Your task to perform on an android device: turn on location history Image 0: 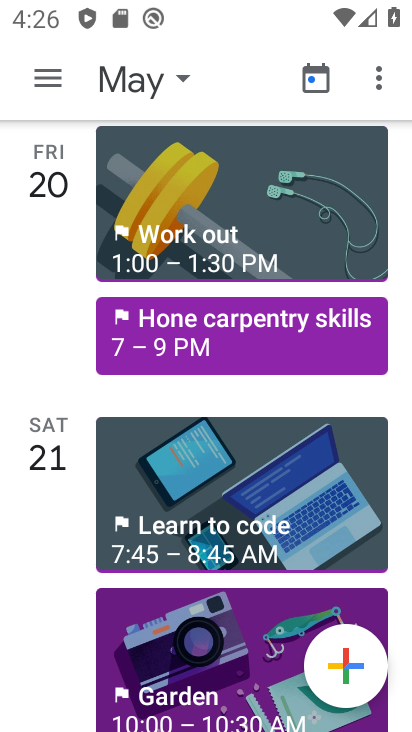
Step 0: press home button
Your task to perform on an android device: turn on location history Image 1: 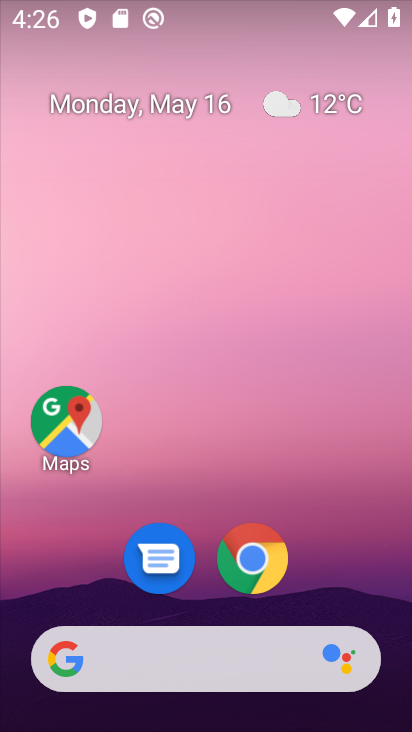
Step 1: drag from (324, 570) to (313, 129)
Your task to perform on an android device: turn on location history Image 2: 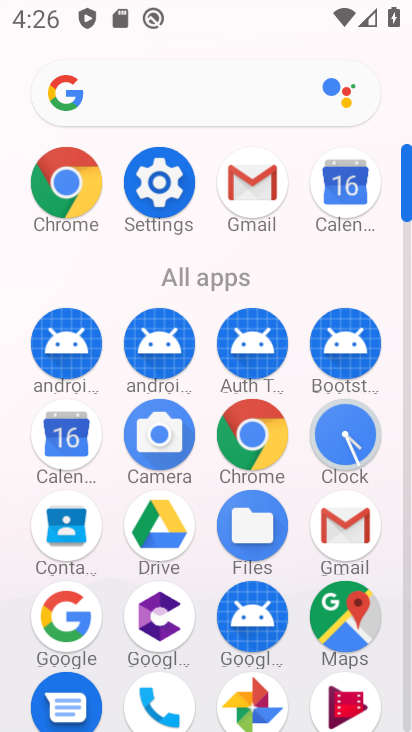
Step 2: click (159, 219)
Your task to perform on an android device: turn on location history Image 3: 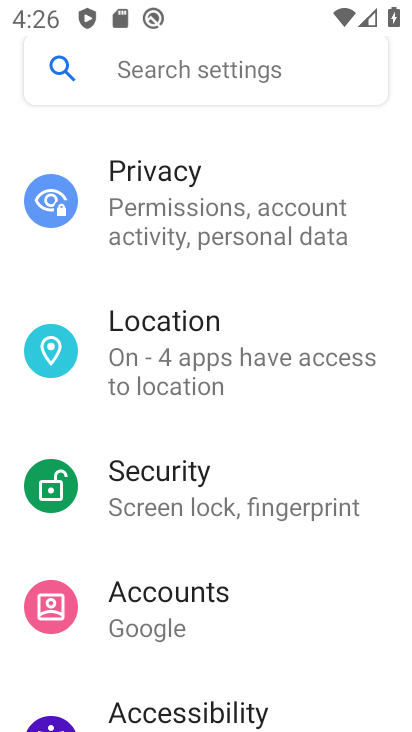
Step 3: drag from (288, 653) to (330, 421)
Your task to perform on an android device: turn on location history Image 4: 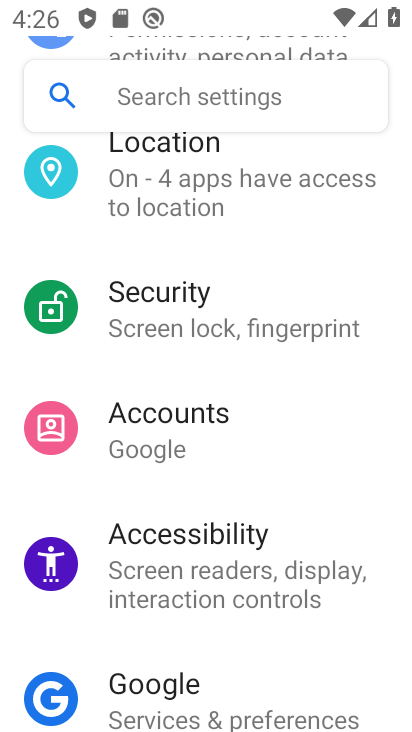
Step 4: click (262, 205)
Your task to perform on an android device: turn on location history Image 5: 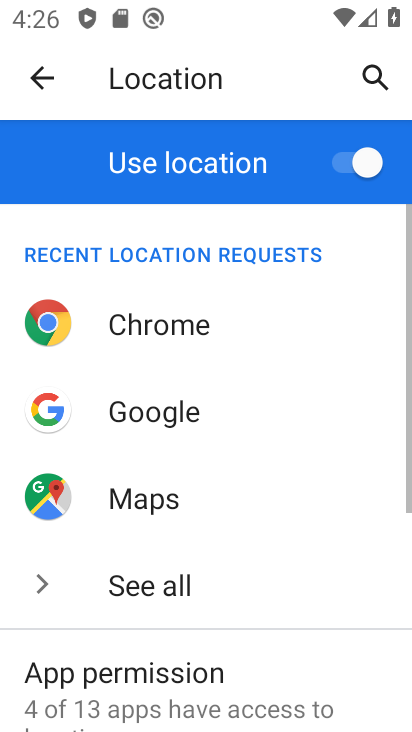
Step 5: drag from (220, 530) to (247, 260)
Your task to perform on an android device: turn on location history Image 6: 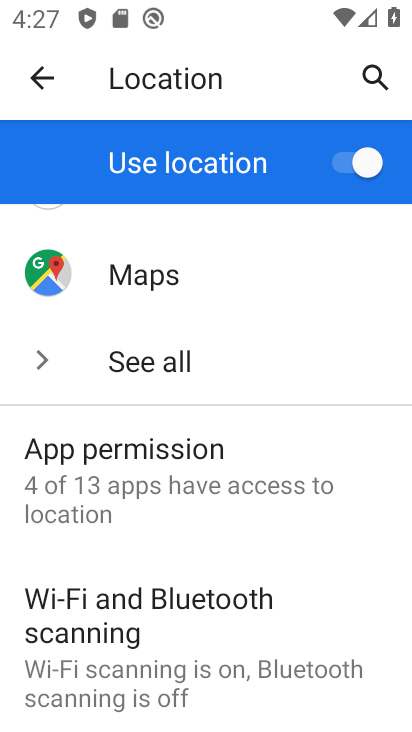
Step 6: drag from (169, 651) to (203, 260)
Your task to perform on an android device: turn on location history Image 7: 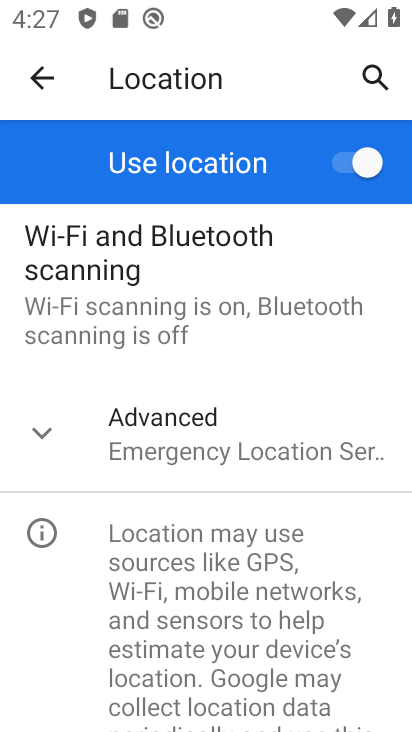
Step 7: click (36, 430)
Your task to perform on an android device: turn on location history Image 8: 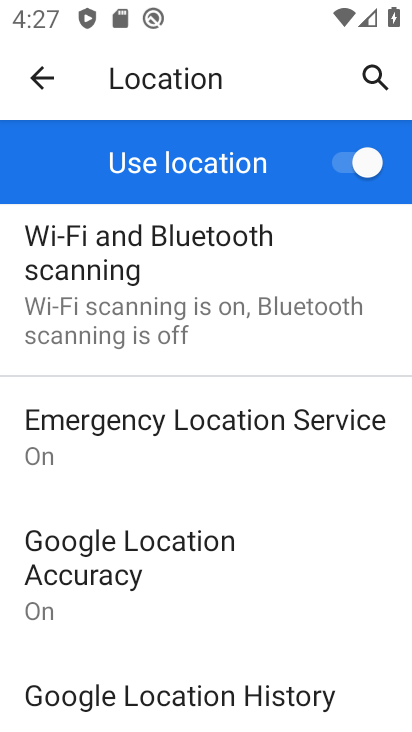
Step 8: click (203, 704)
Your task to perform on an android device: turn on location history Image 9: 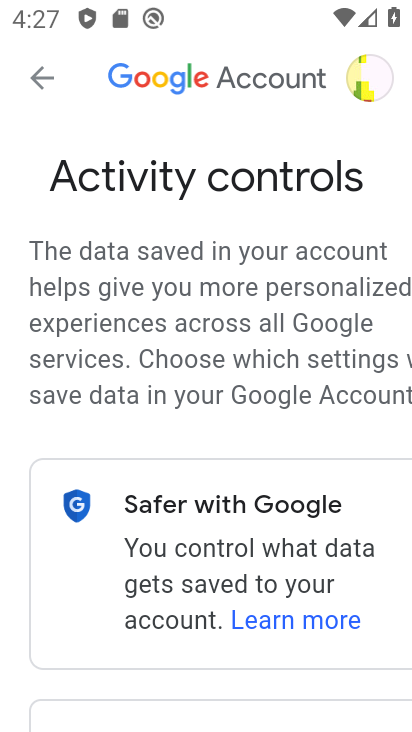
Step 9: drag from (192, 684) to (217, 223)
Your task to perform on an android device: turn on location history Image 10: 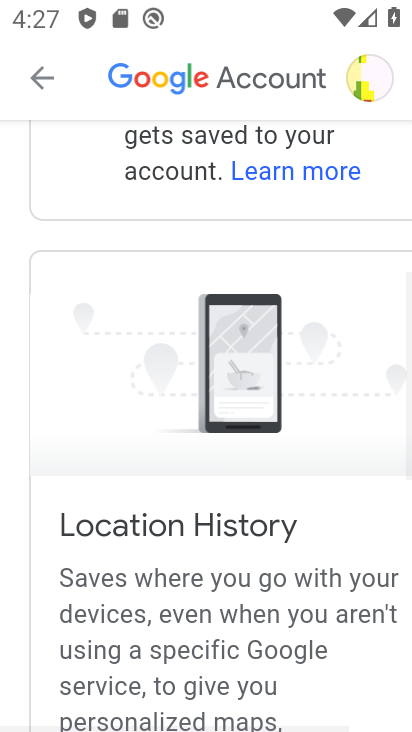
Step 10: drag from (317, 645) to (289, 314)
Your task to perform on an android device: turn on location history Image 11: 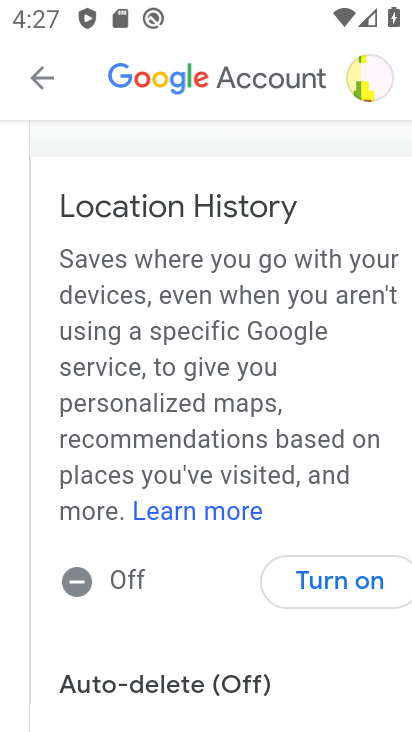
Step 11: click (331, 586)
Your task to perform on an android device: turn on location history Image 12: 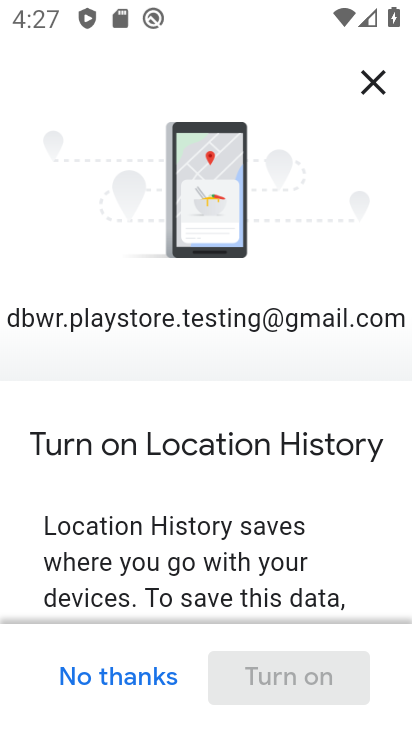
Step 12: drag from (319, 557) to (339, 95)
Your task to perform on an android device: turn on location history Image 13: 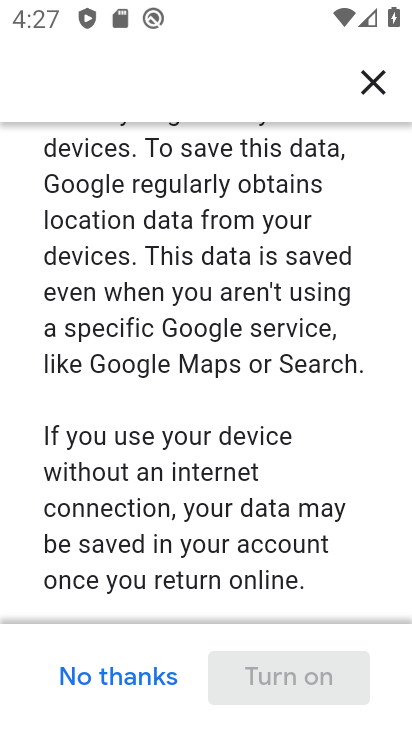
Step 13: drag from (301, 512) to (319, 64)
Your task to perform on an android device: turn on location history Image 14: 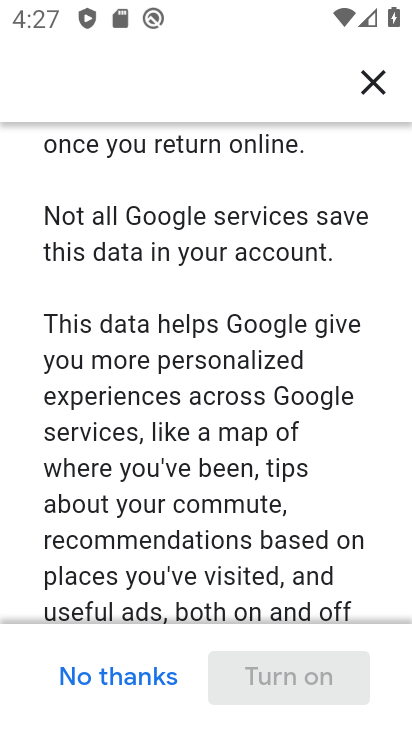
Step 14: drag from (318, 529) to (343, 82)
Your task to perform on an android device: turn on location history Image 15: 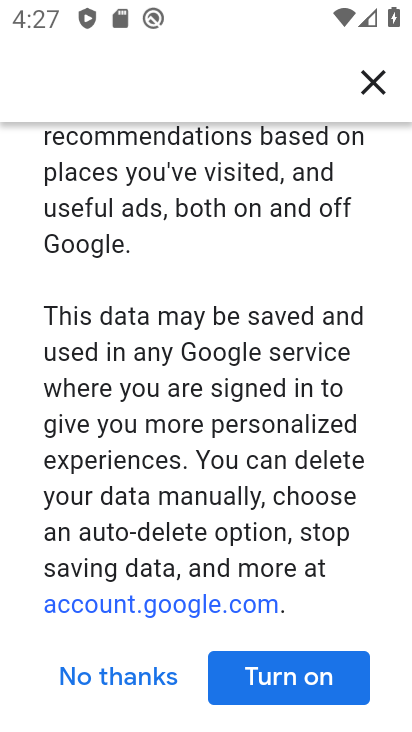
Step 15: drag from (334, 602) to (372, 186)
Your task to perform on an android device: turn on location history Image 16: 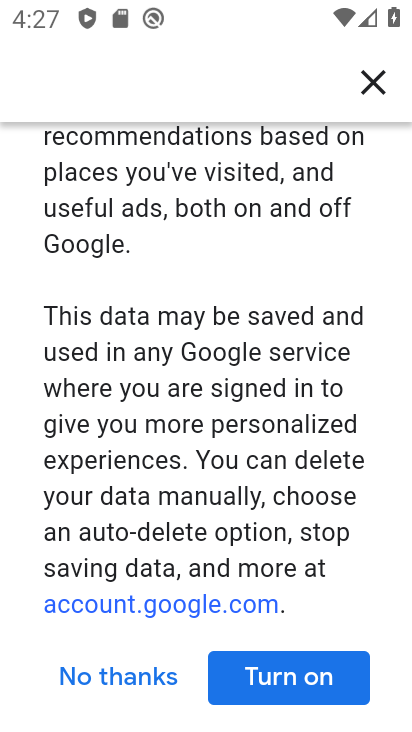
Step 16: click (320, 676)
Your task to perform on an android device: turn on location history Image 17: 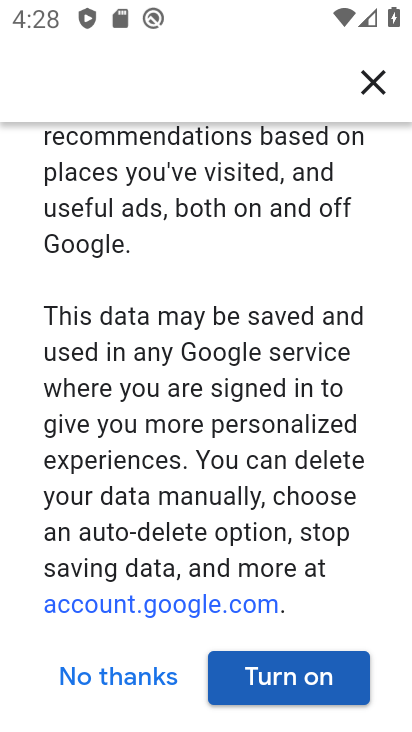
Step 17: click (330, 687)
Your task to perform on an android device: turn on location history Image 18: 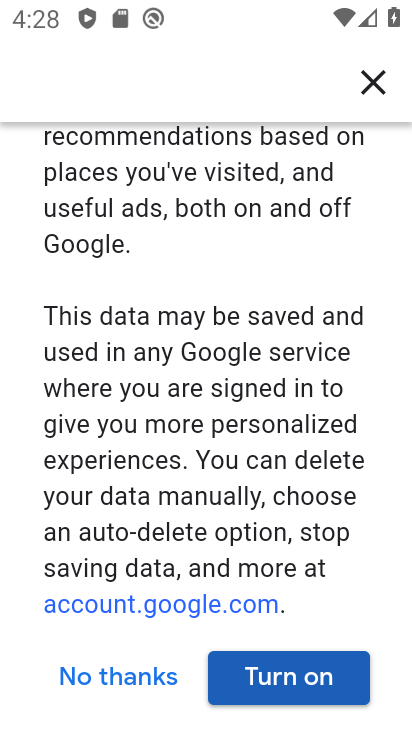
Step 18: click (326, 690)
Your task to perform on an android device: turn on location history Image 19: 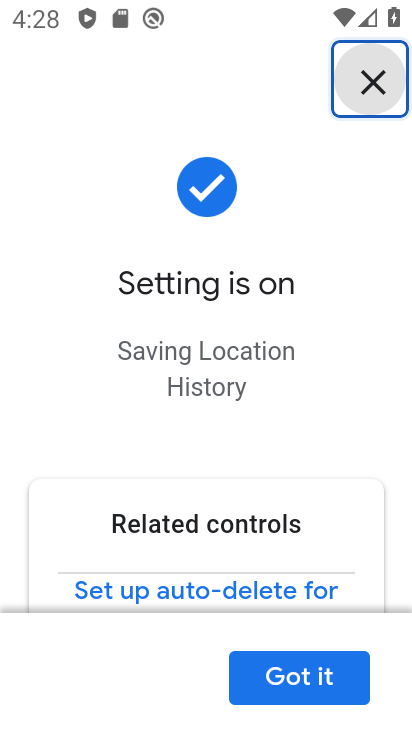
Step 19: click (326, 691)
Your task to perform on an android device: turn on location history Image 20: 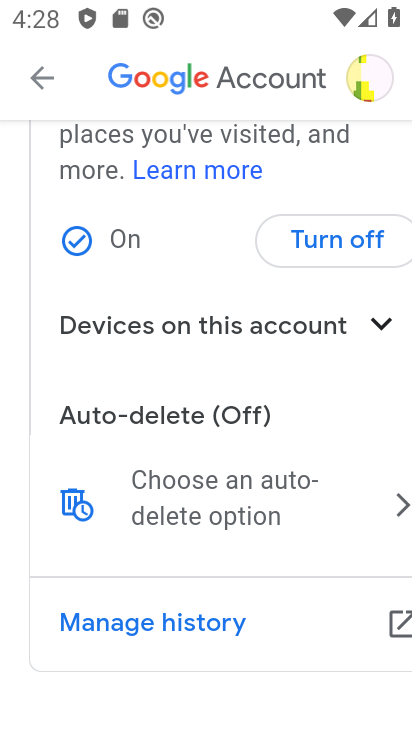
Step 20: task complete